Your task to perform on an android device: open app "Venmo" (install if not already installed) and enter user name: "bleedings@gmail.com" and password: "copied" Image 0: 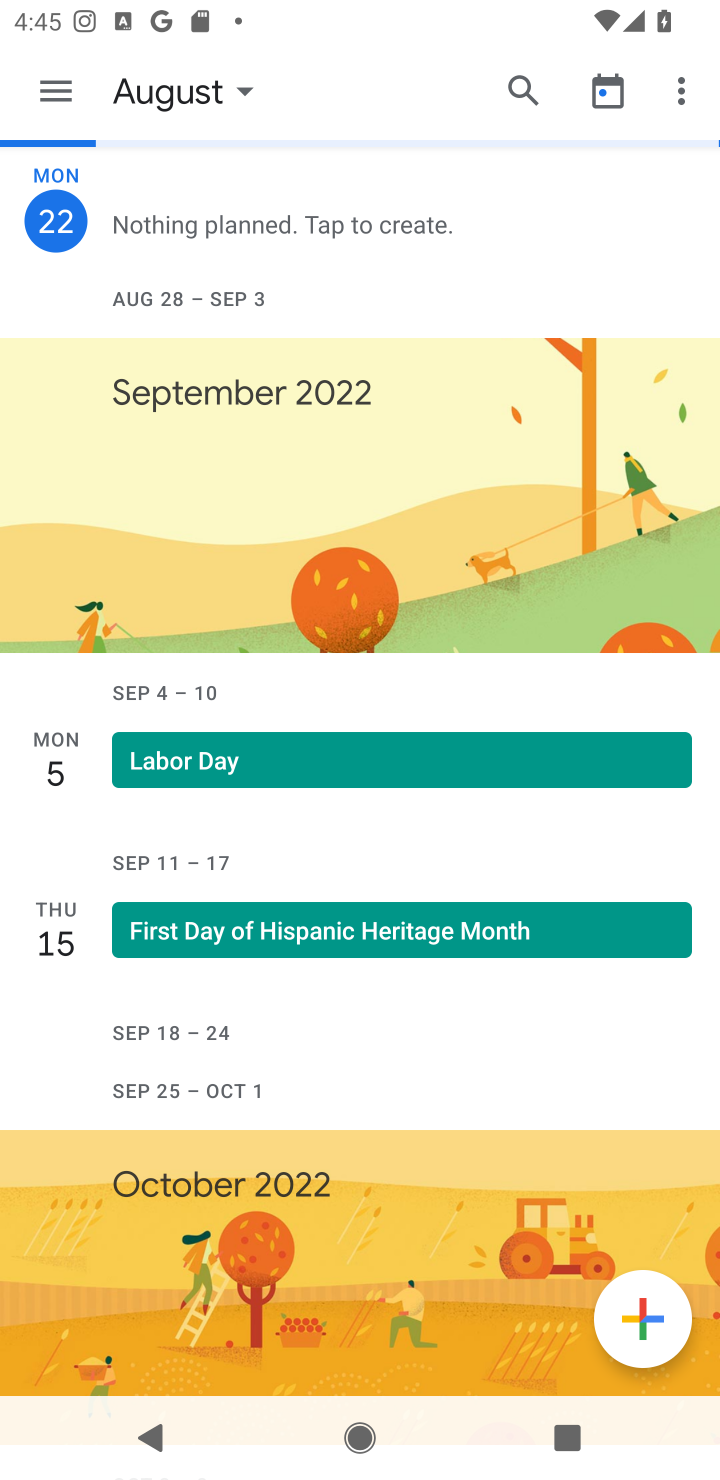
Step 0: press home button
Your task to perform on an android device: open app "Venmo" (install if not already installed) and enter user name: "bleedings@gmail.com" and password: "copied" Image 1: 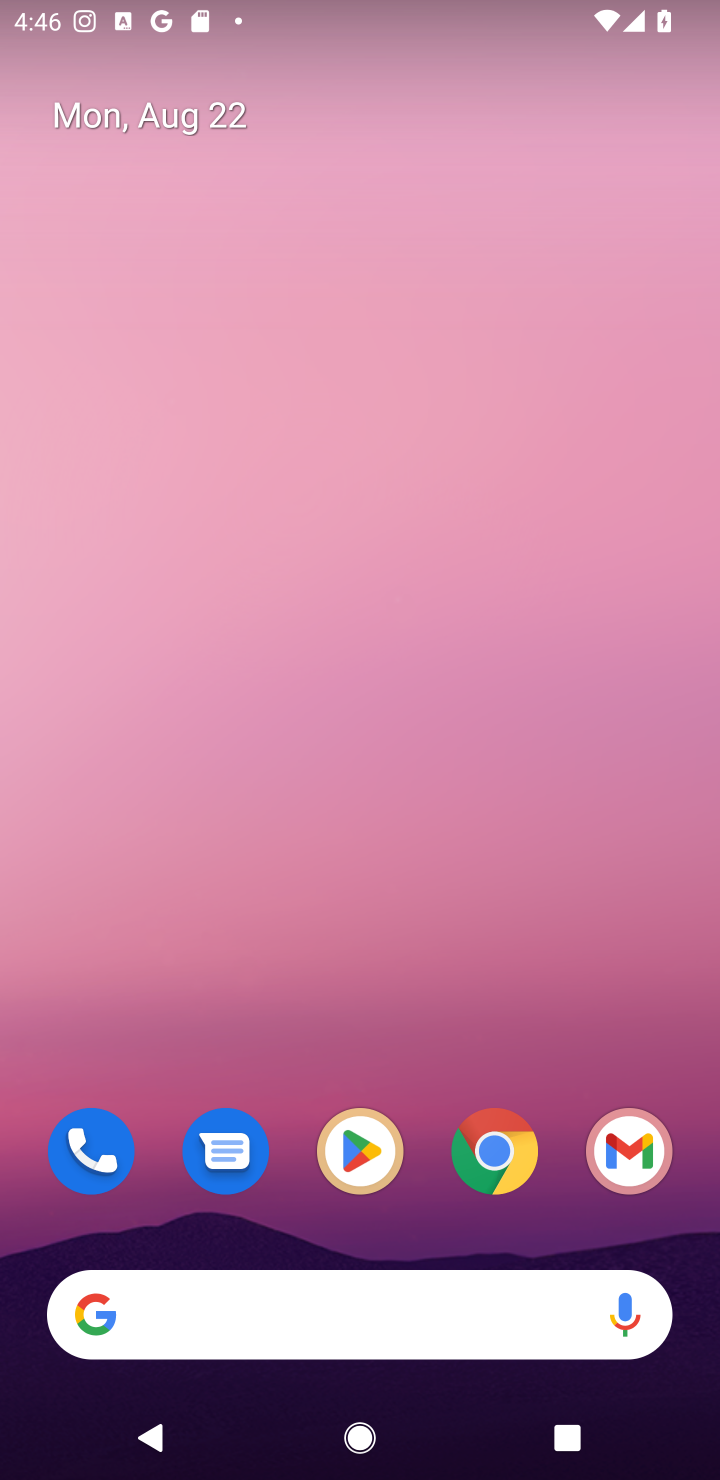
Step 1: click (373, 1139)
Your task to perform on an android device: open app "Venmo" (install if not already installed) and enter user name: "bleedings@gmail.com" and password: "copied" Image 2: 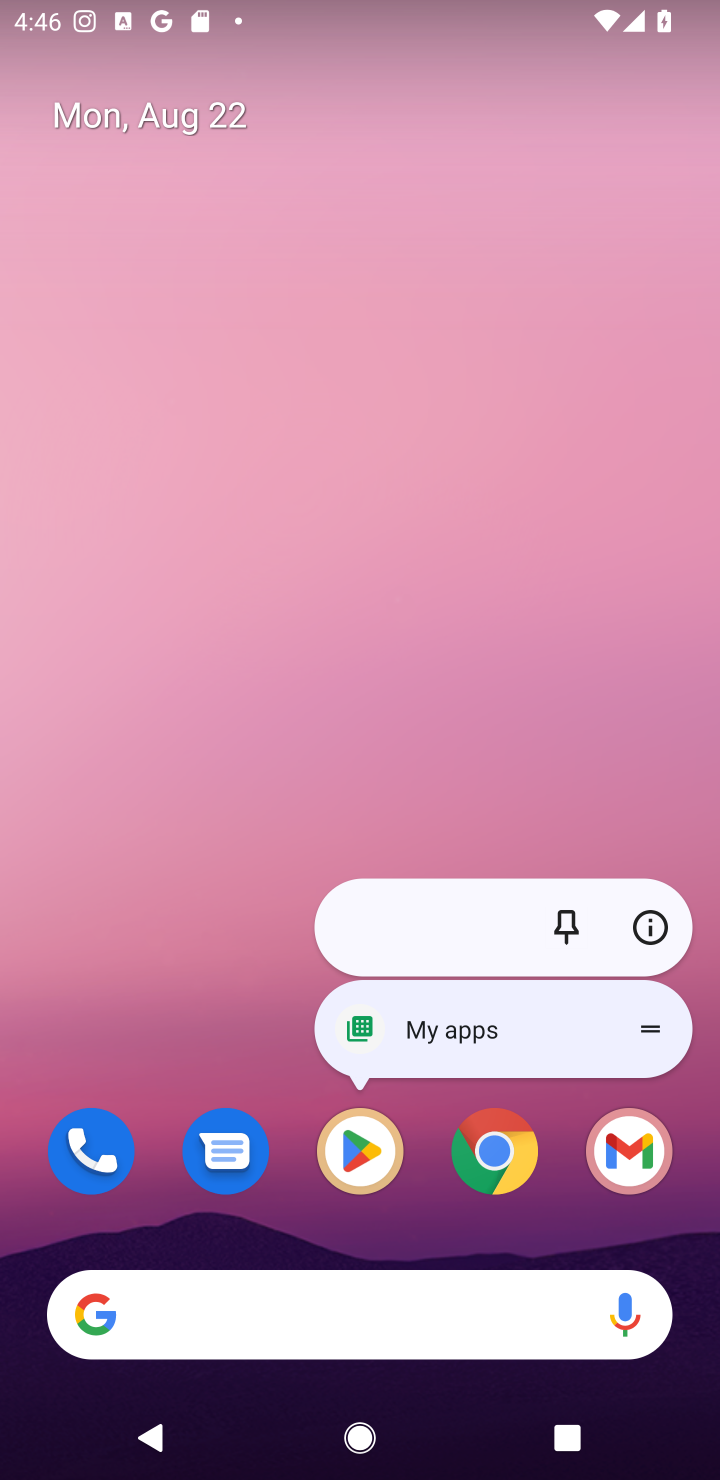
Step 2: click (358, 1149)
Your task to perform on an android device: open app "Venmo" (install if not already installed) and enter user name: "bleedings@gmail.com" and password: "copied" Image 3: 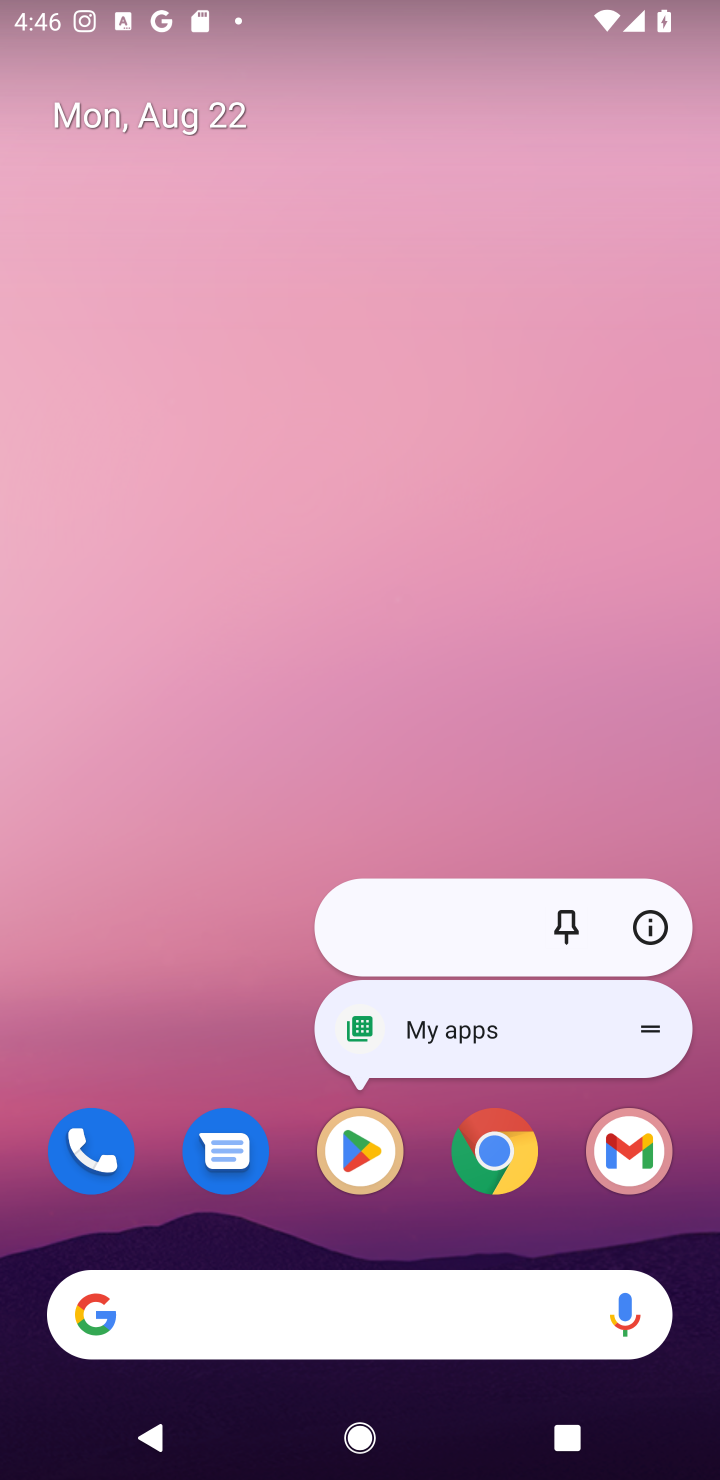
Step 3: click (356, 1167)
Your task to perform on an android device: open app "Venmo" (install if not already installed) and enter user name: "bleedings@gmail.com" and password: "copied" Image 4: 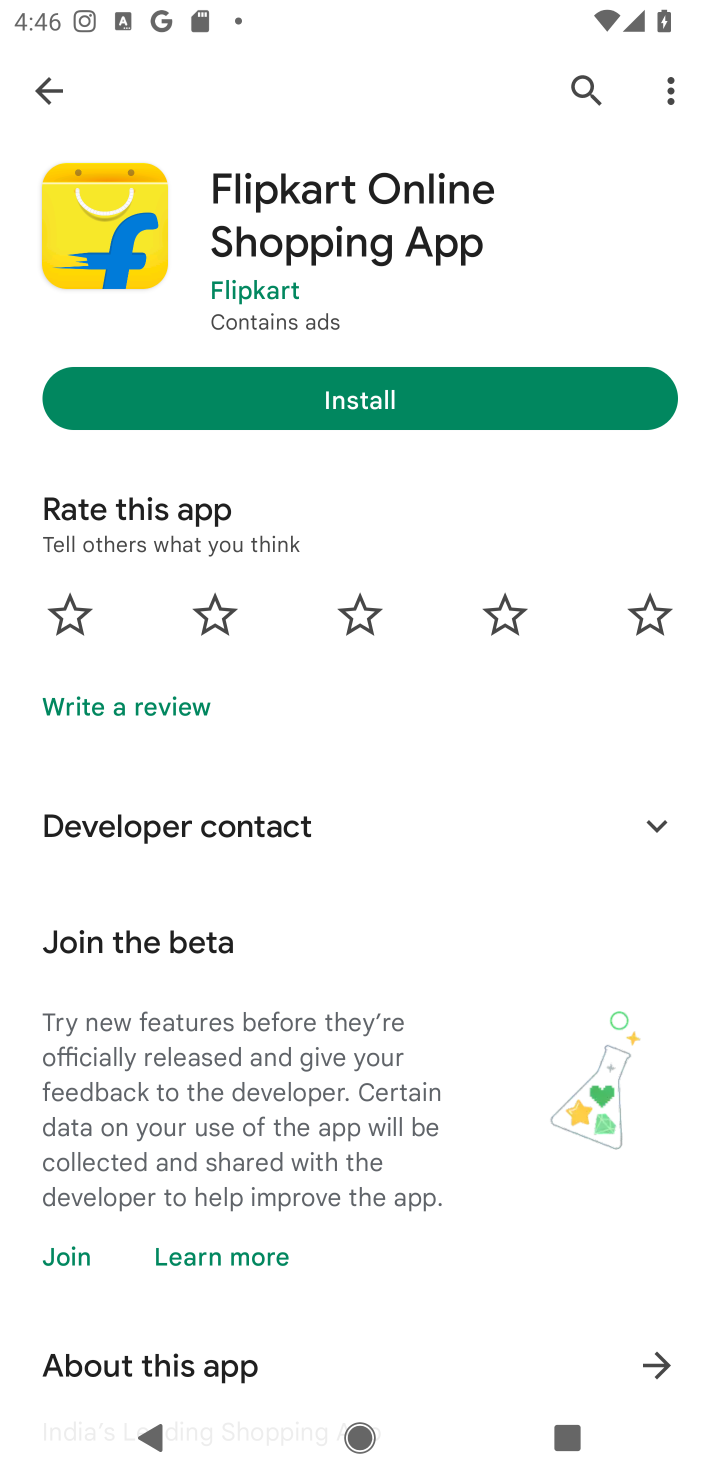
Step 4: click (583, 82)
Your task to perform on an android device: open app "Venmo" (install if not already installed) and enter user name: "bleedings@gmail.com" and password: "copied" Image 5: 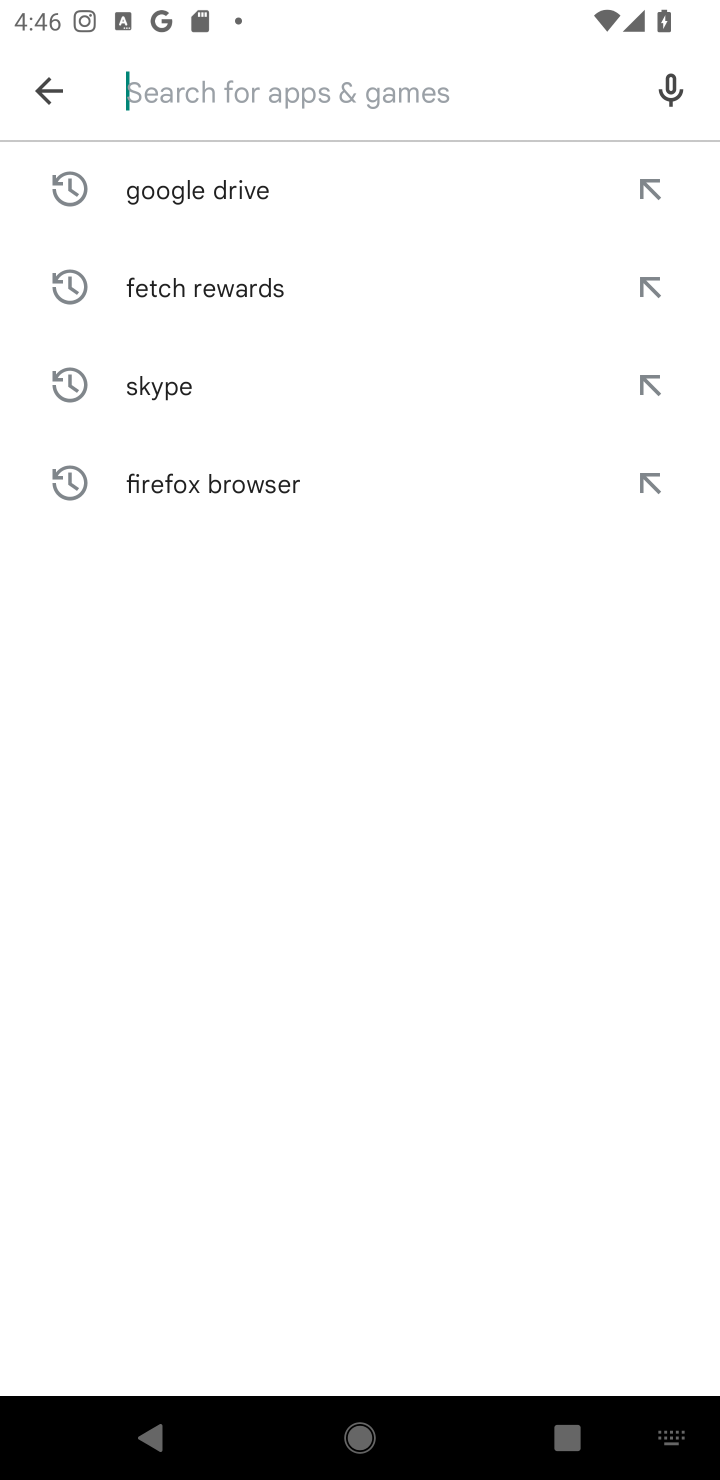
Step 5: type "Venmo"
Your task to perform on an android device: open app "Venmo" (install if not already installed) and enter user name: "bleedings@gmail.com" and password: "copied" Image 6: 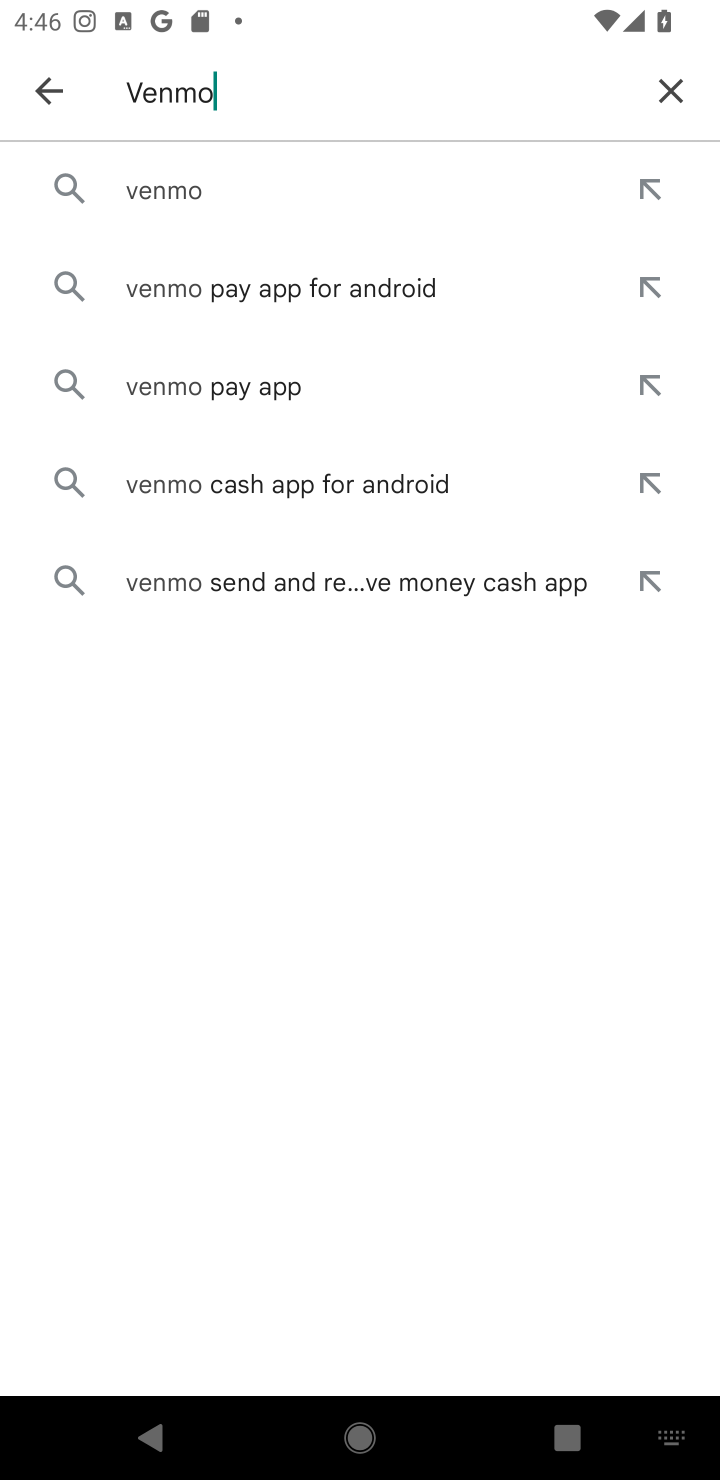
Step 6: click (172, 189)
Your task to perform on an android device: open app "Venmo" (install if not already installed) and enter user name: "bleedings@gmail.com" and password: "copied" Image 7: 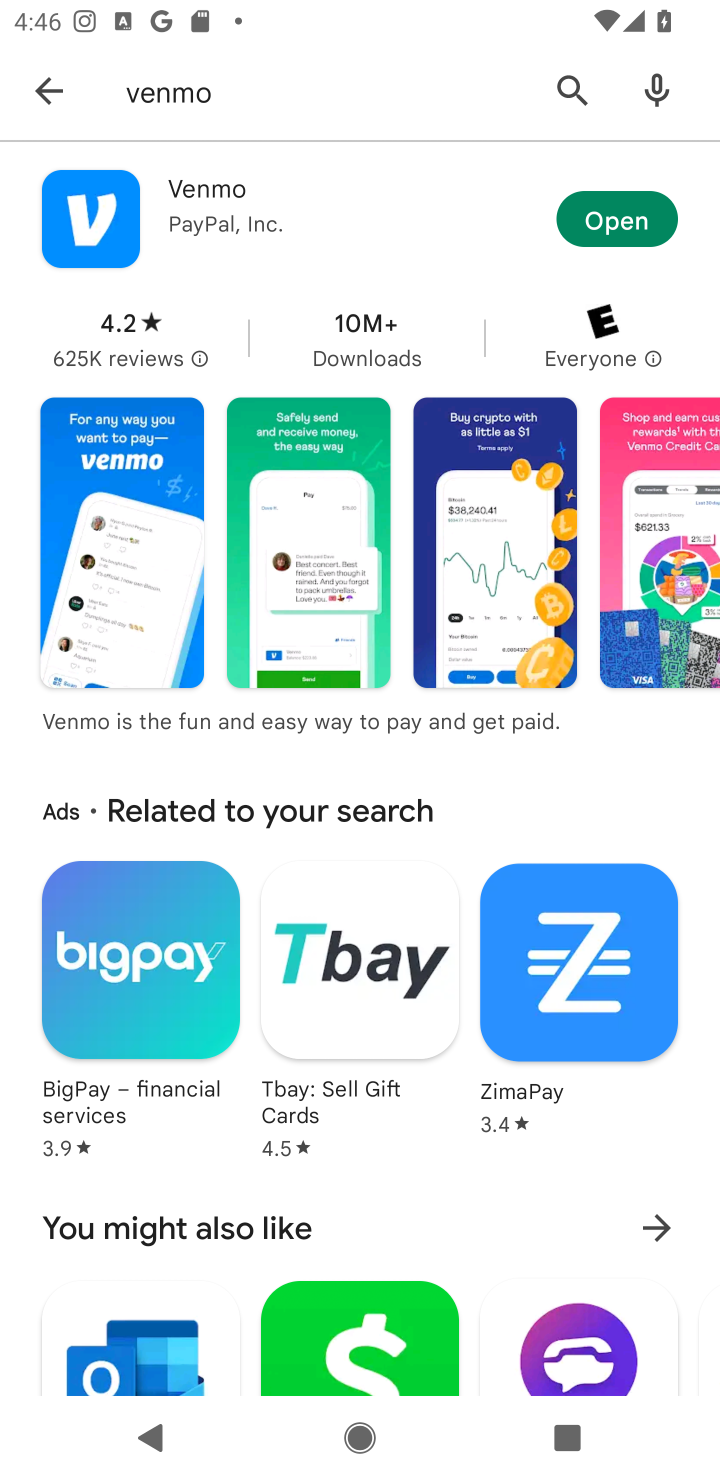
Step 7: click (612, 223)
Your task to perform on an android device: open app "Venmo" (install if not already installed) and enter user name: "bleedings@gmail.com" and password: "copied" Image 8: 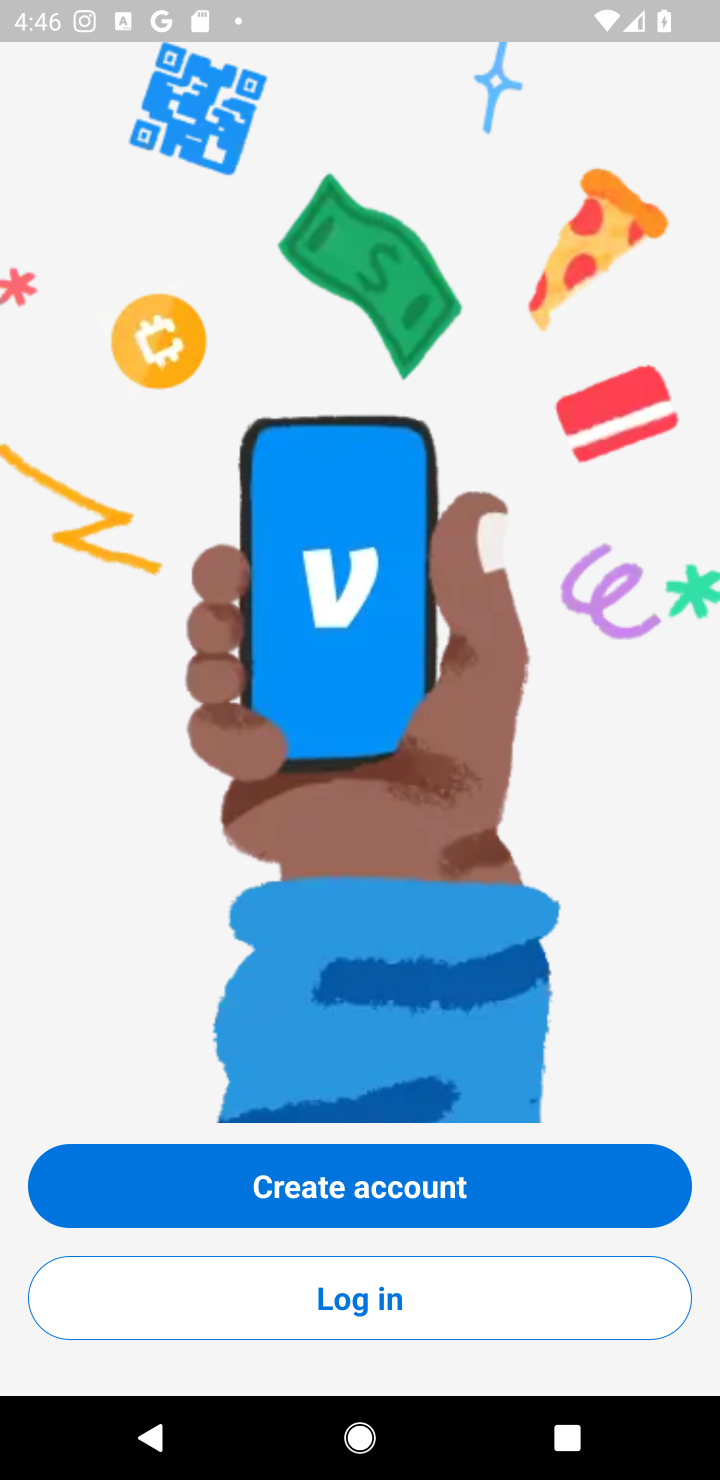
Step 8: click (316, 1288)
Your task to perform on an android device: open app "Venmo" (install if not already installed) and enter user name: "bleedings@gmail.com" and password: "copied" Image 9: 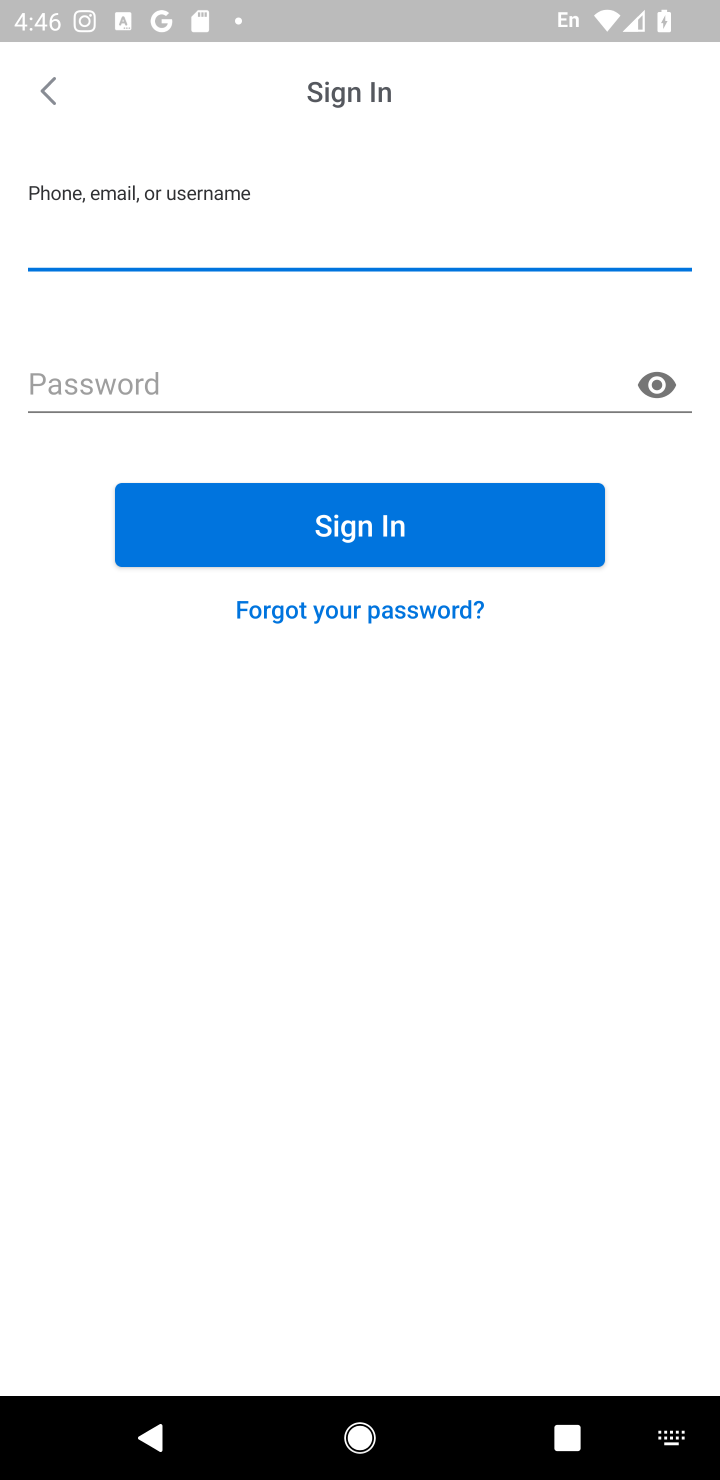
Step 9: type "bleedings@gmail.com"
Your task to perform on an android device: open app "Venmo" (install if not already installed) and enter user name: "bleedings@gmail.com" and password: "copied" Image 10: 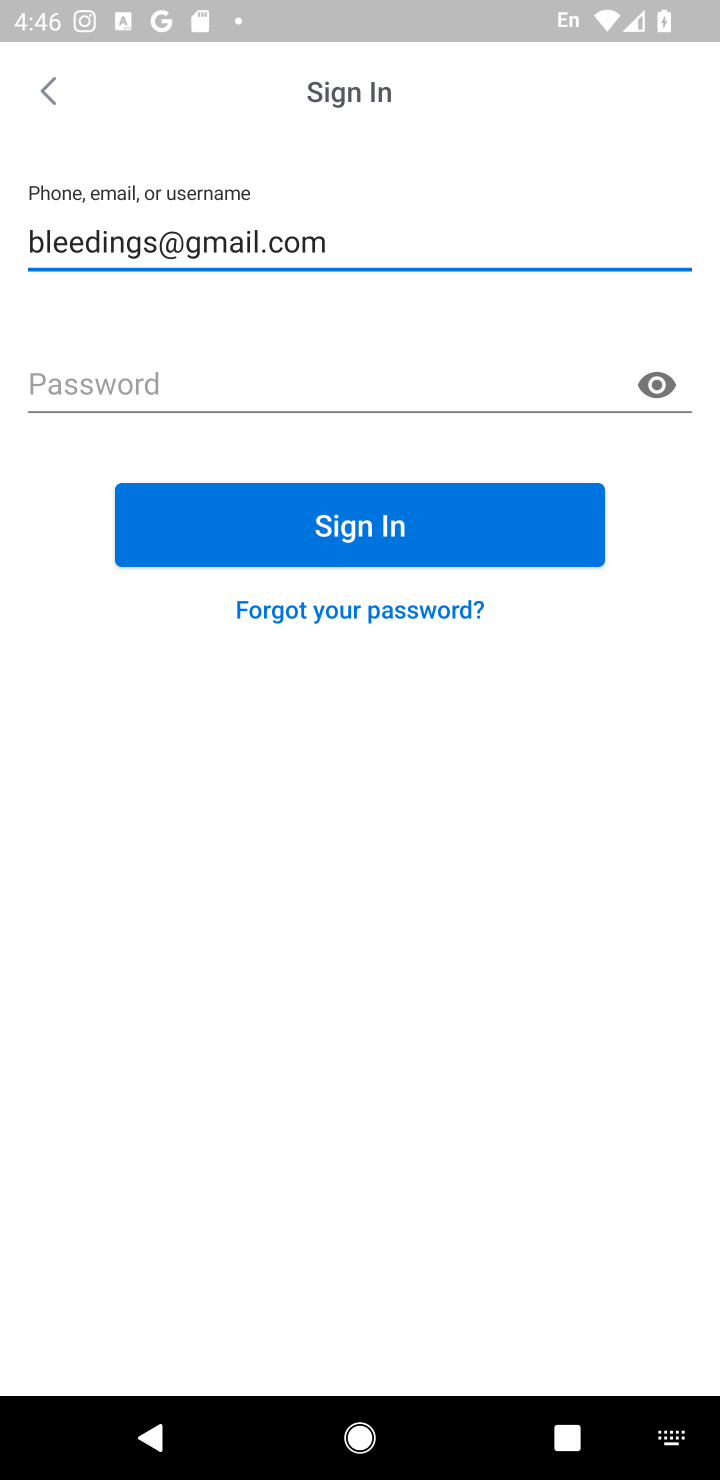
Step 10: click (70, 379)
Your task to perform on an android device: open app "Venmo" (install if not already installed) and enter user name: "bleedings@gmail.com" and password: "copied" Image 11: 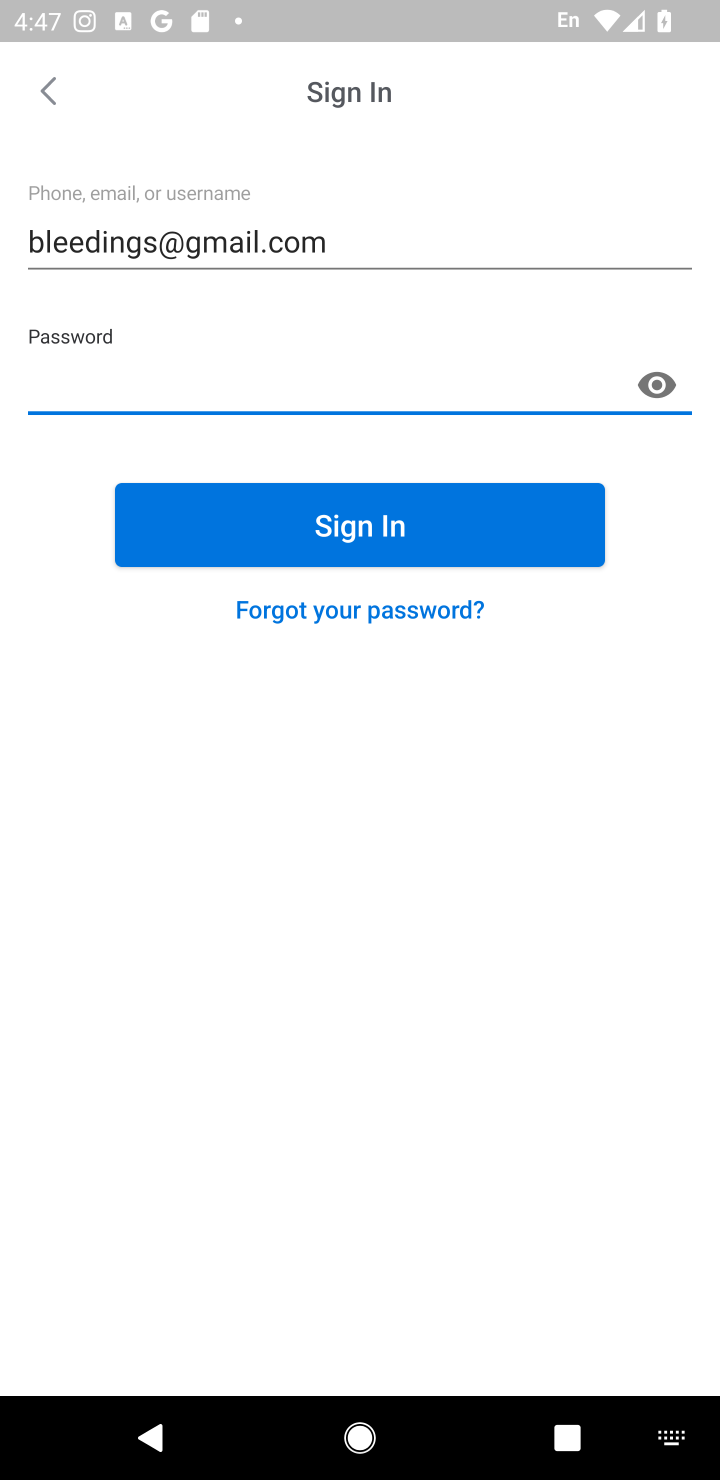
Step 11: type "copied"
Your task to perform on an android device: open app "Venmo" (install if not already installed) and enter user name: "bleedings@gmail.com" and password: "copied" Image 12: 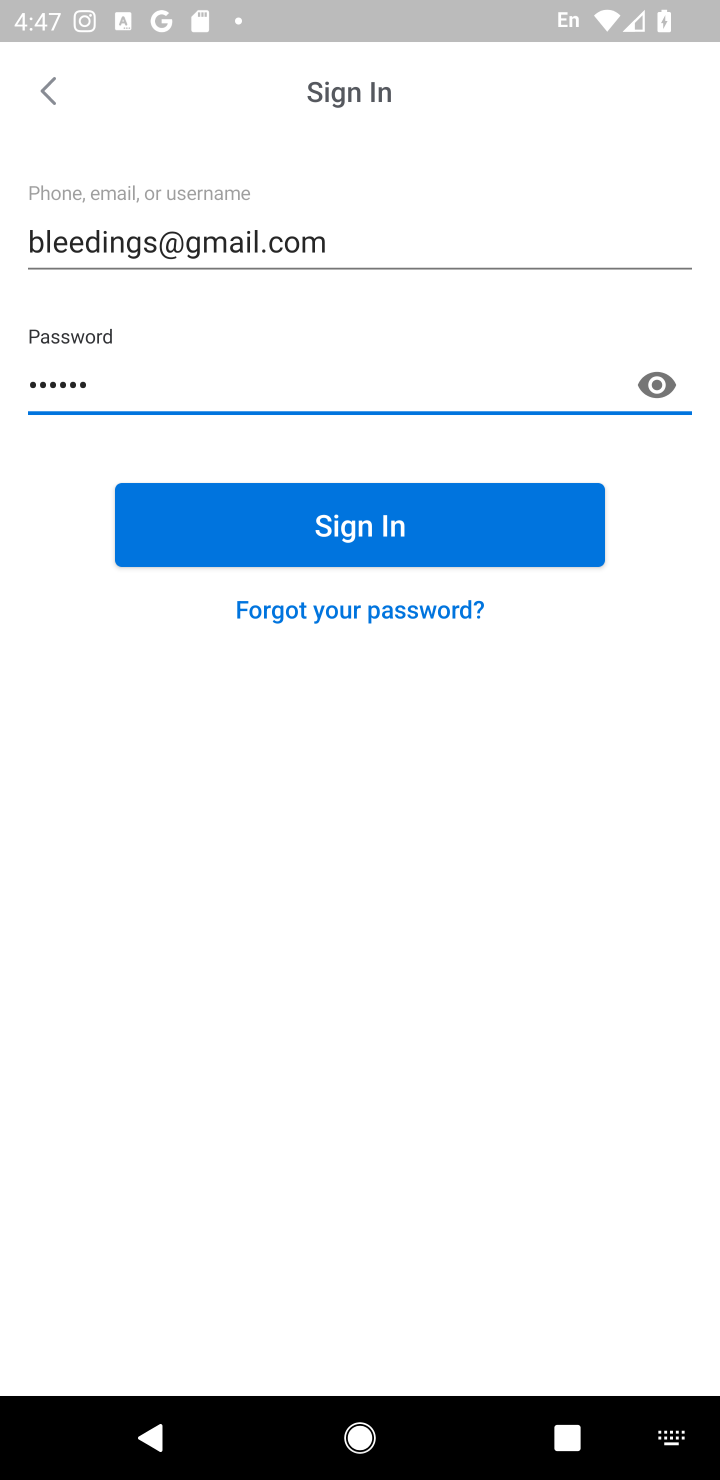
Step 12: task complete